Your task to perform on an android device: change notifications settings Image 0: 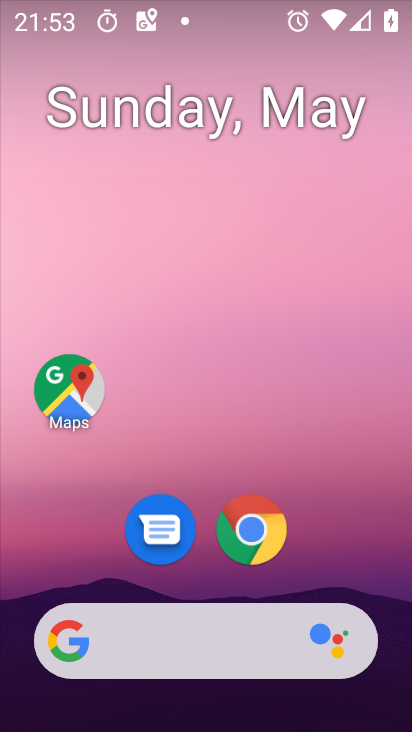
Step 0: drag from (374, 595) to (370, 8)
Your task to perform on an android device: change notifications settings Image 1: 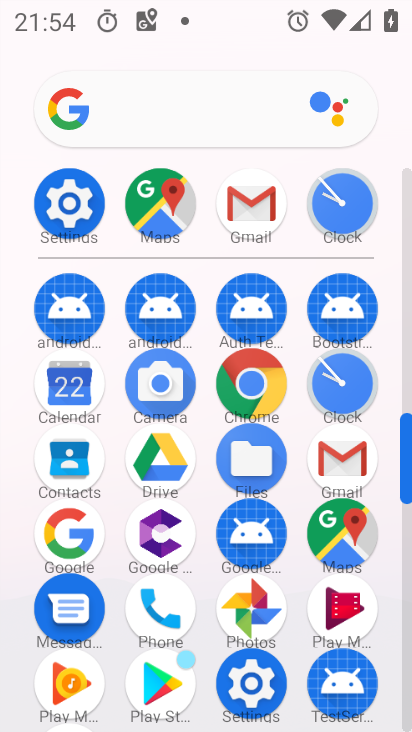
Step 1: click (63, 205)
Your task to perform on an android device: change notifications settings Image 2: 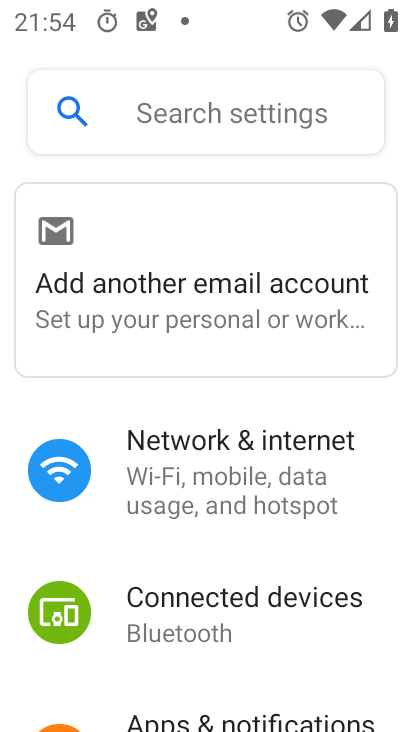
Step 2: drag from (328, 599) to (356, 202)
Your task to perform on an android device: change notifications settings Image 3: 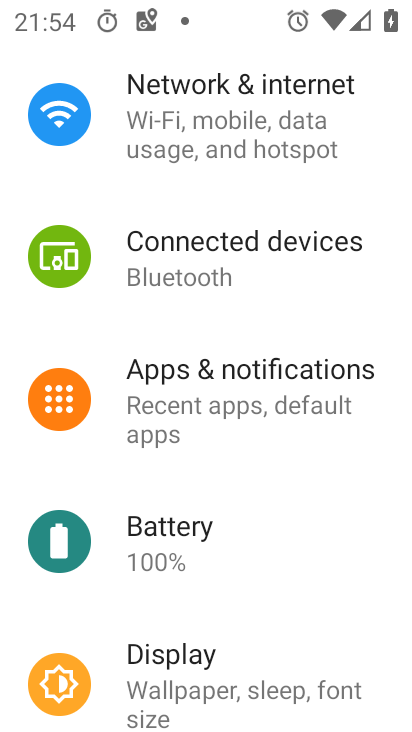
Step 3: click (247, 386)
Your task to perform on an android device: change notifications settings Image 4: 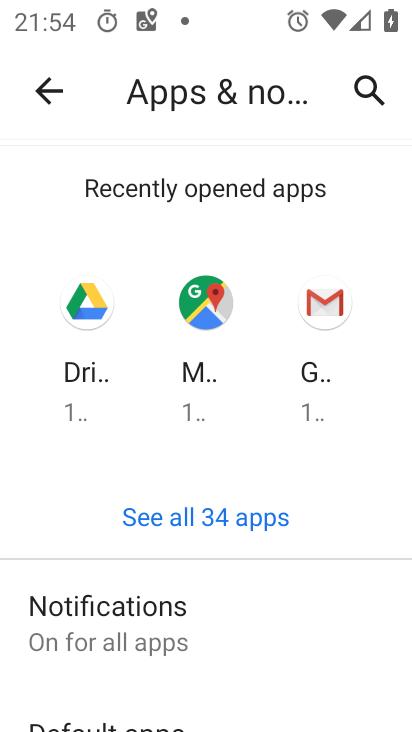
Step 4: task complete